Your task to perform on an android device: turn off wifi Image 0: 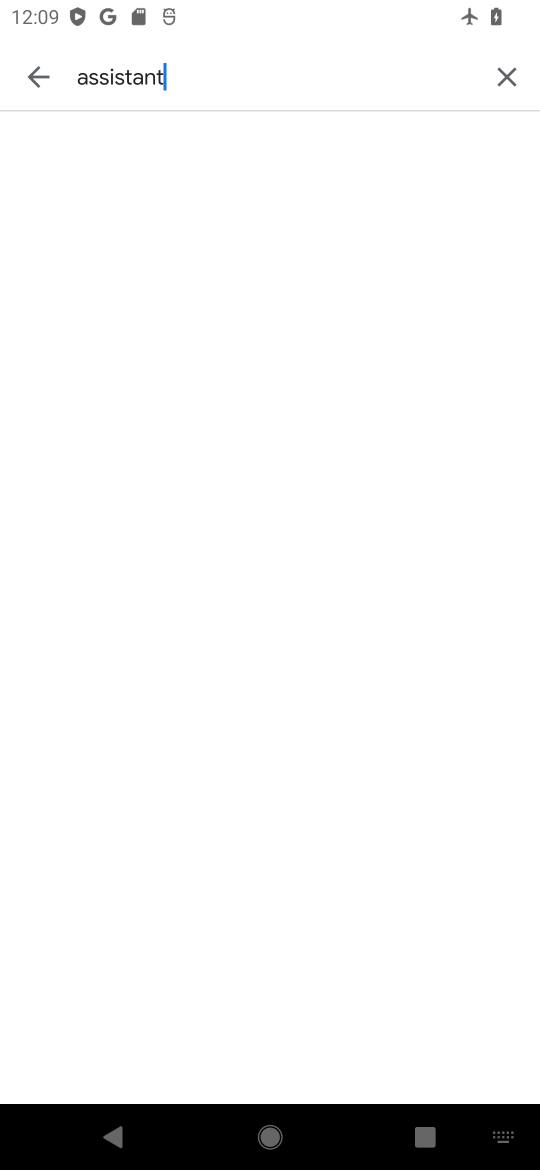
Step 0: press home button
Your task to perform on an android device: turn off wifi Image 1: 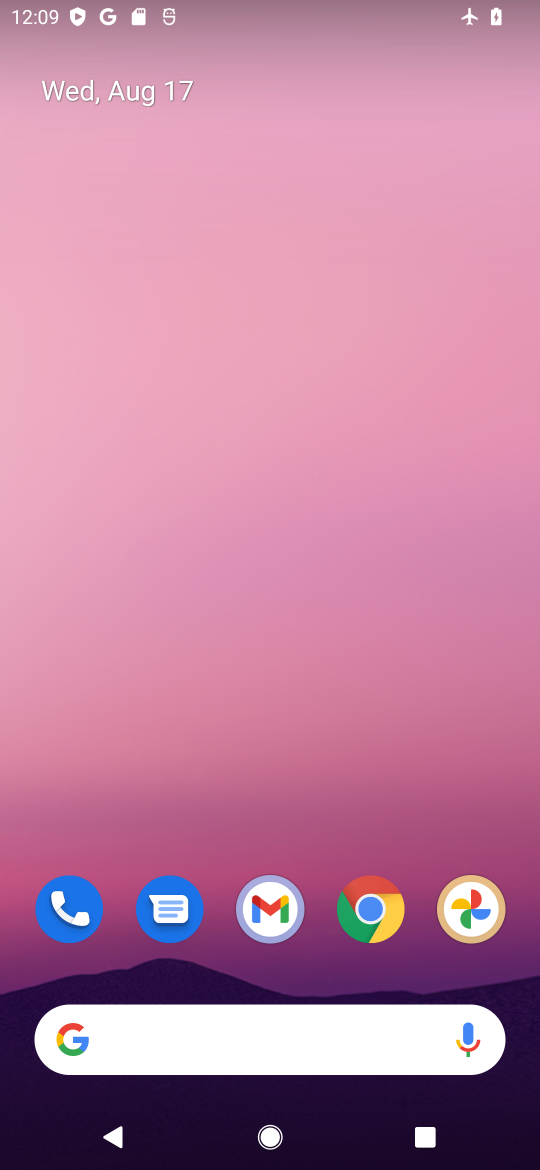
Step 1: drag from (334, 815) to (312, 190)
Your task to perform on an android device: turn off wifi Image 2: 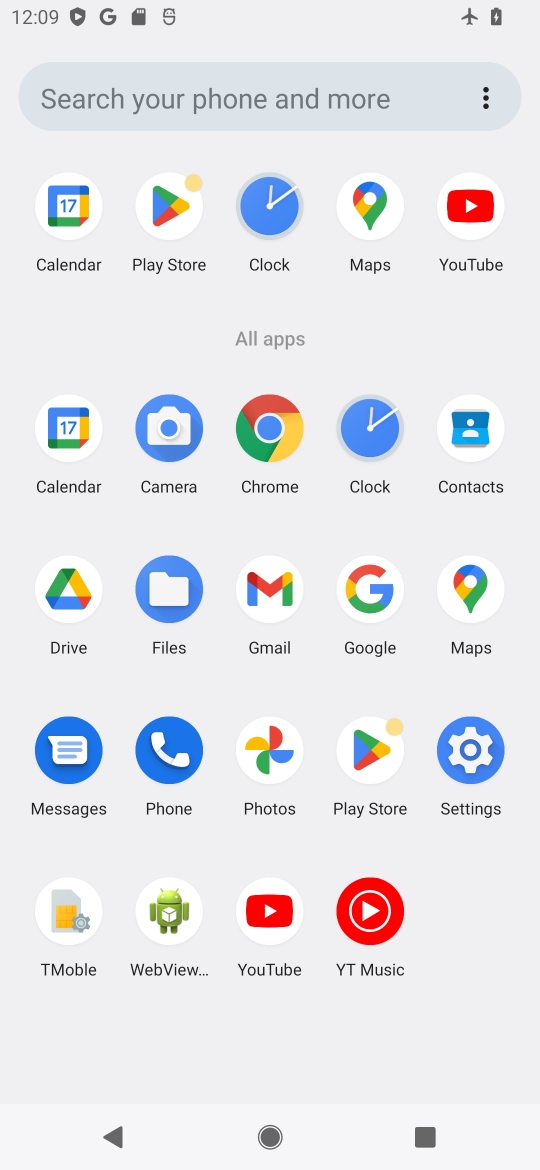
Step 2: click (477, 751)
Your task to perform on an android device: turn off wifi Image 3: 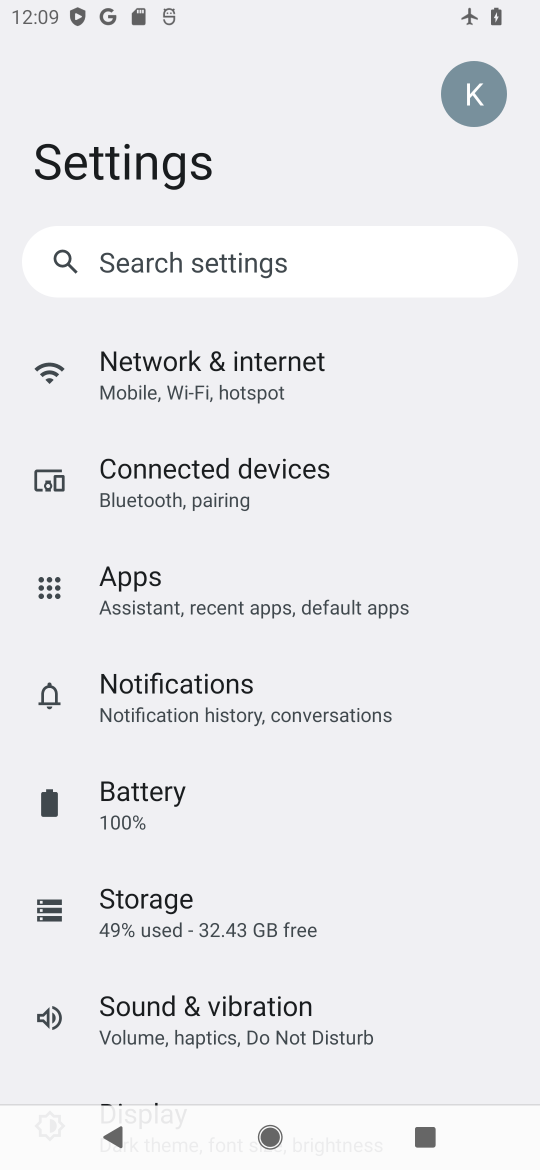
Step 3: click (230, 353)
Your task to perform on an android device: turn off wifi Image 4: 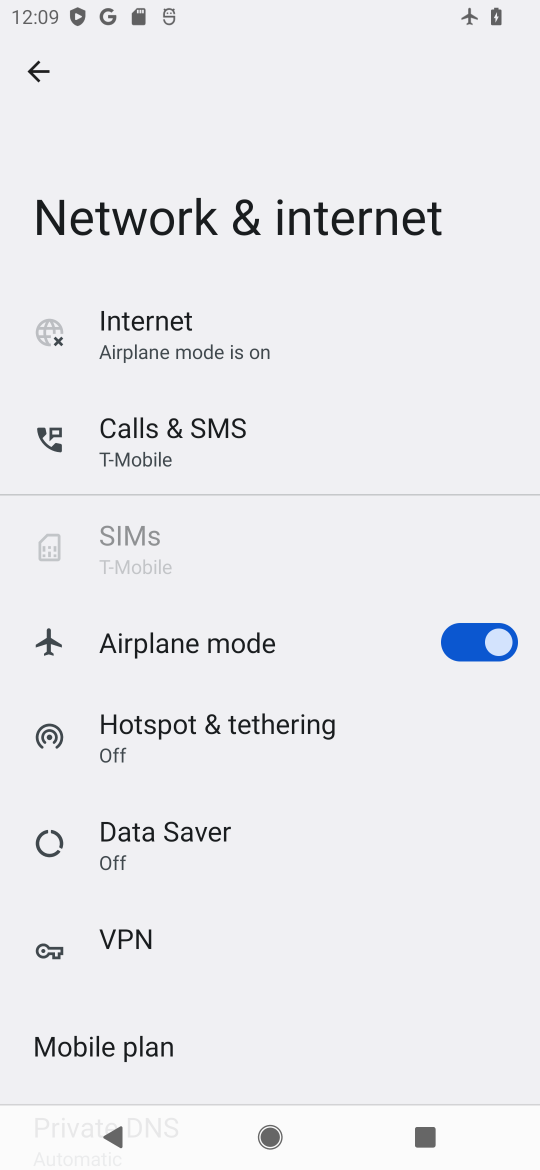
Step 4: click (146, 305)
Your task to perform on an android device: turn off wifi Image 5: 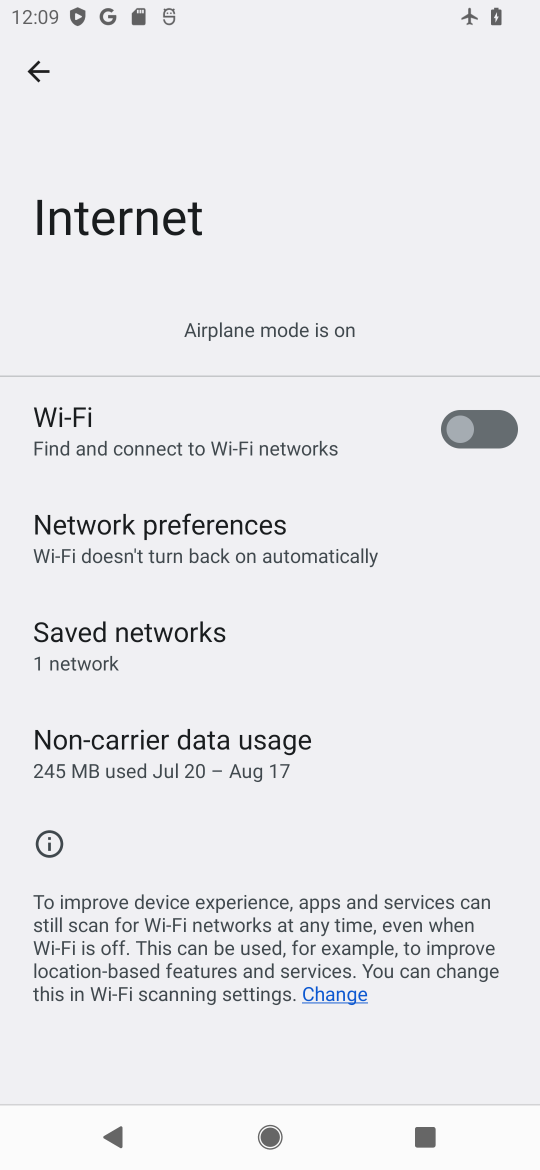
Step 5: task complete